Your task to perform on an android device: toggle wifi Image 0: 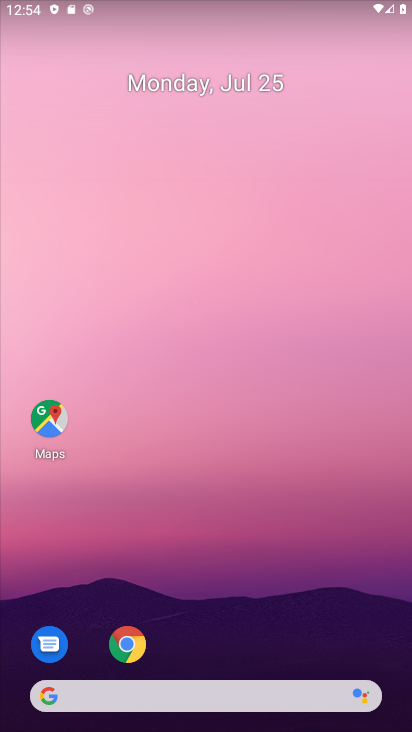
Step 0: click (202, 721)
Your task to perform on an android device: toggle wifi Image 1: 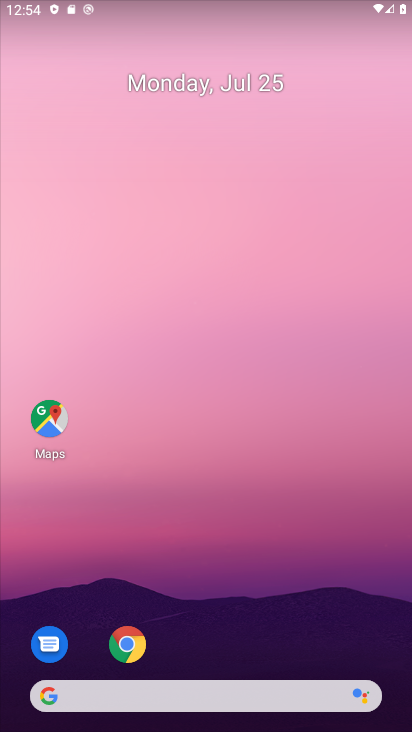
Step 1: drag from (218, 724) to (212, 94)
Your task to perform on an android device: toggle wifi Image 2: 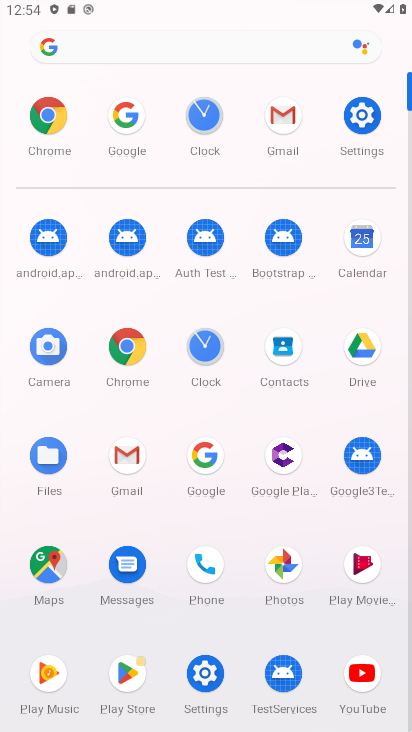
Step 2: click (361, 103)
Your task to perform on an android device: toggle wifi Image 3: 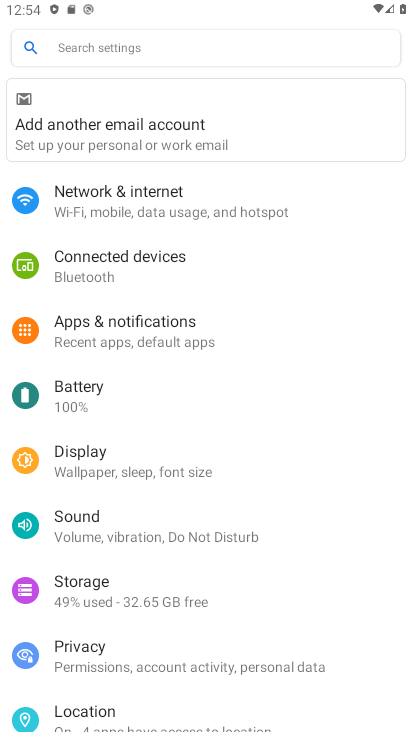
Step 3: click (124, 202)
Your task to perform on an android device: toggle wifi Image 4: 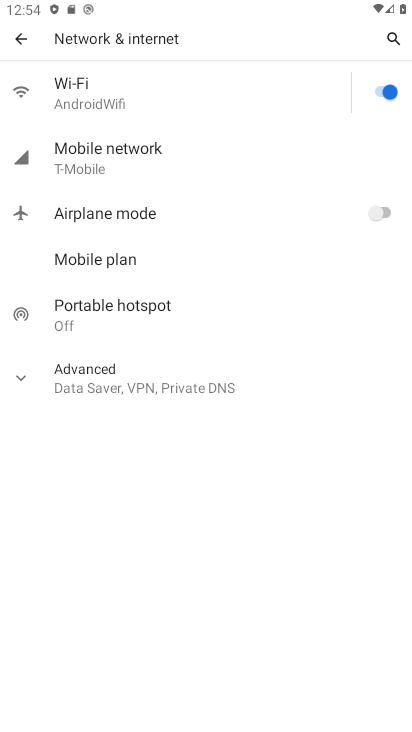
Step 4: click (388, 91)
Your task to perform on an android device: toggle wifi Image 5: 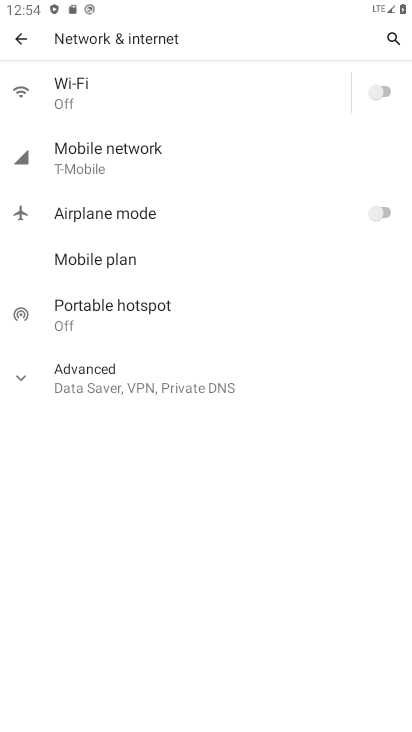
Step 5: task complete